Your task to perform on an android device: What's the weather? Image 0: 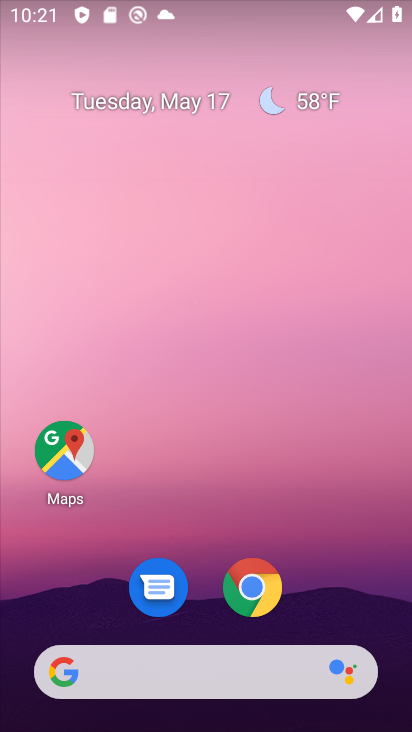
Step 0: drag from (324, 586) to (225, 127)
Your task to perform on an android device: What's the weather? Image 1: 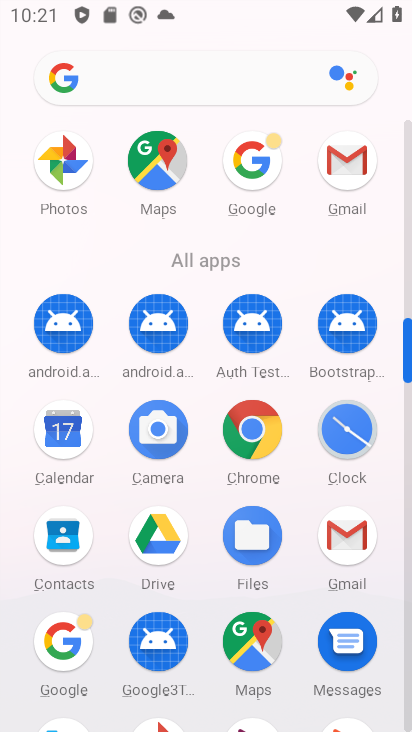
Step 1: click (248, 159)
Your task to perform on an android device: What's the weather? Image 2: 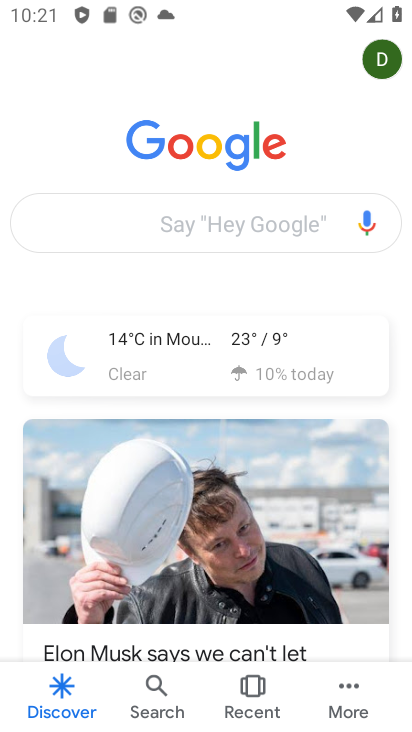
Step 2: click (195, 228)
Your task to perform on an android device: What's the weather? Image 3: 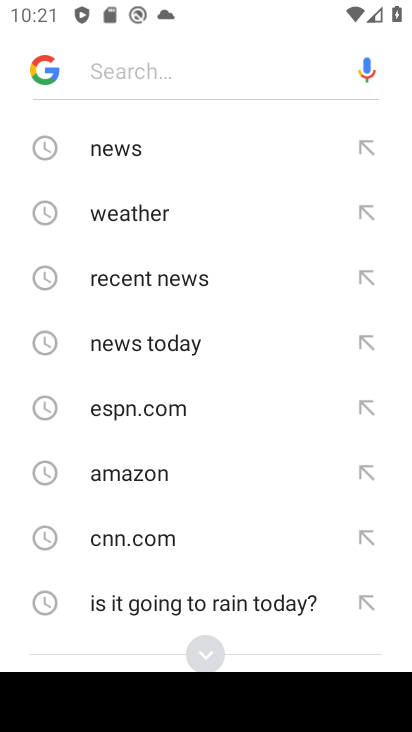
Step 3: type "weather"
Your task to perform on an android device: What's the weather? Image 4: 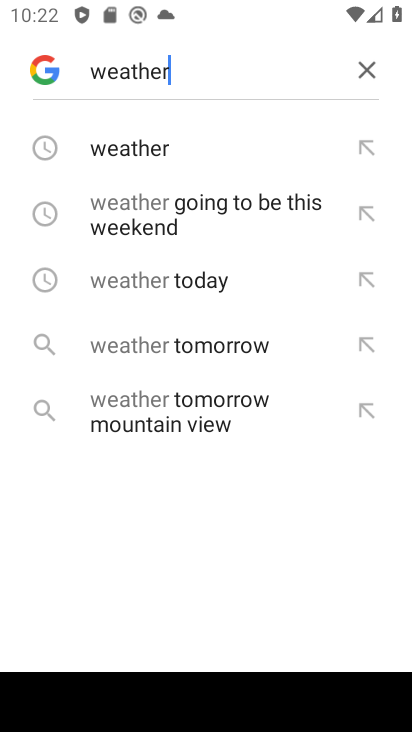
Step 4: click (138, 156)
Your task to perform on an android device: What's the weather? Image 5: 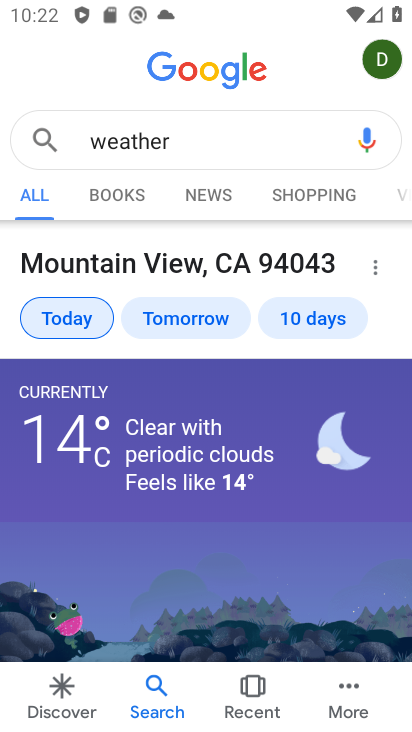
Step 5: task complete